Your task to perform on an android device: Go to battery settings Image 0: 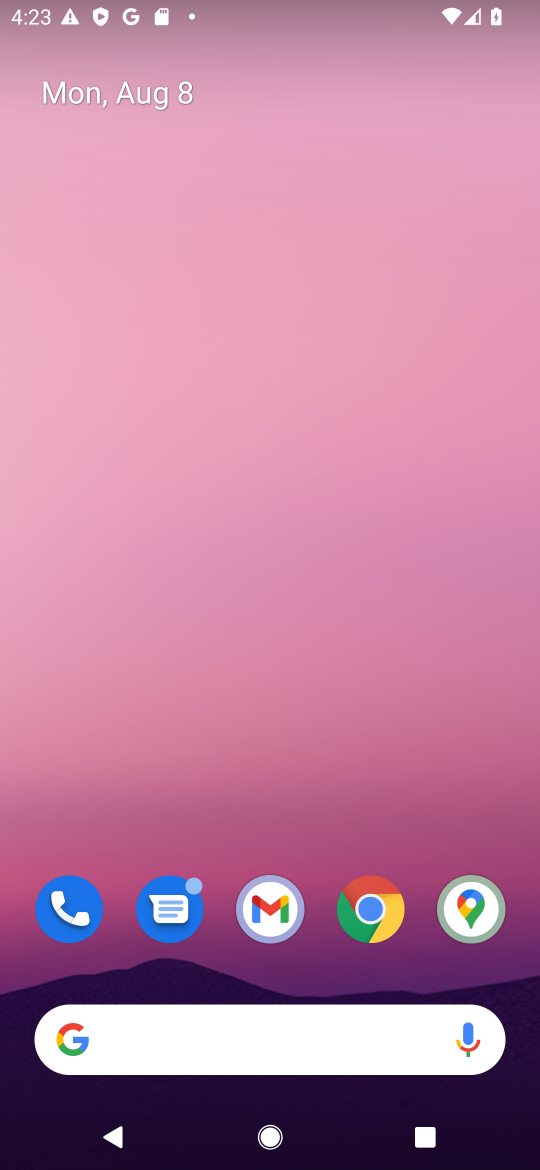
Step 0: drag from (321, 999) to (405, 186)
Your task to perform on an android device: Go to battery settings Image 1: 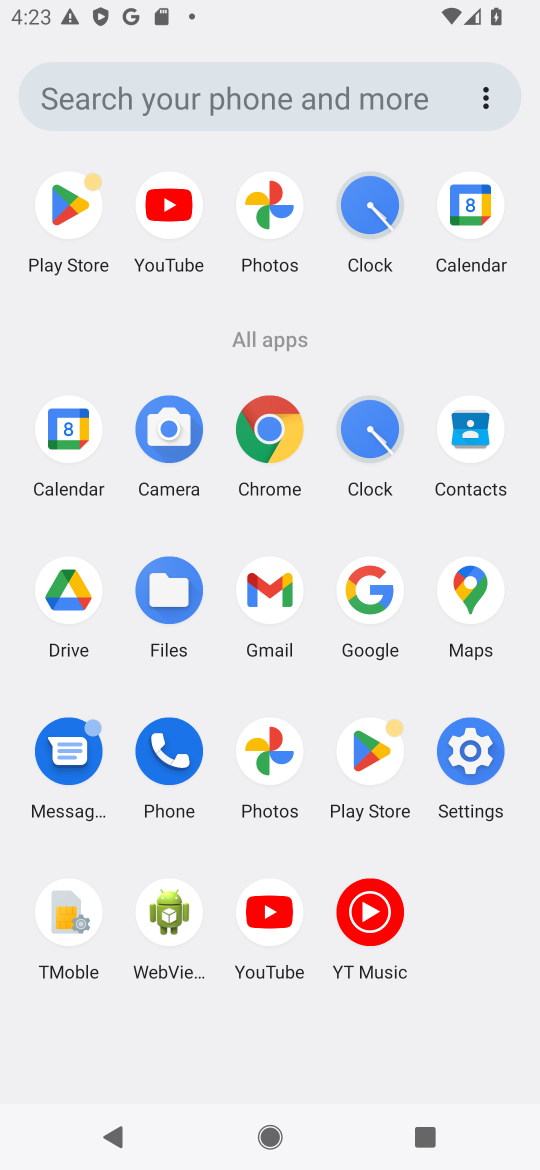
Step 1: click (467, 743)
Your task to perform on an android device: Go to battery settings Image 2: 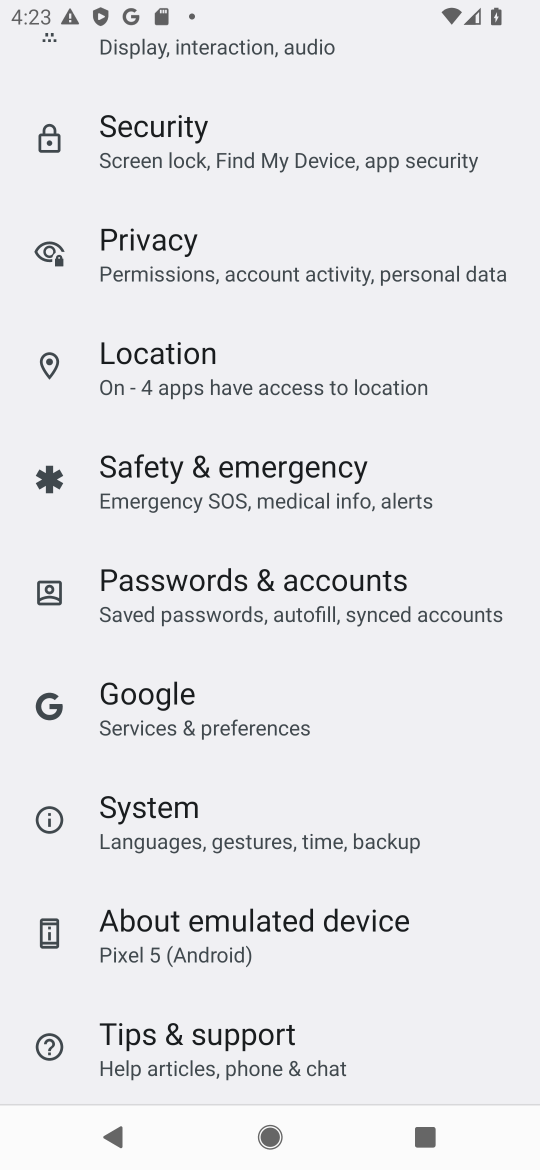
Step 2: drag from (330, 211) to (423, 1036)
Your task to perform on an android device: Go to battery settings Image 3: 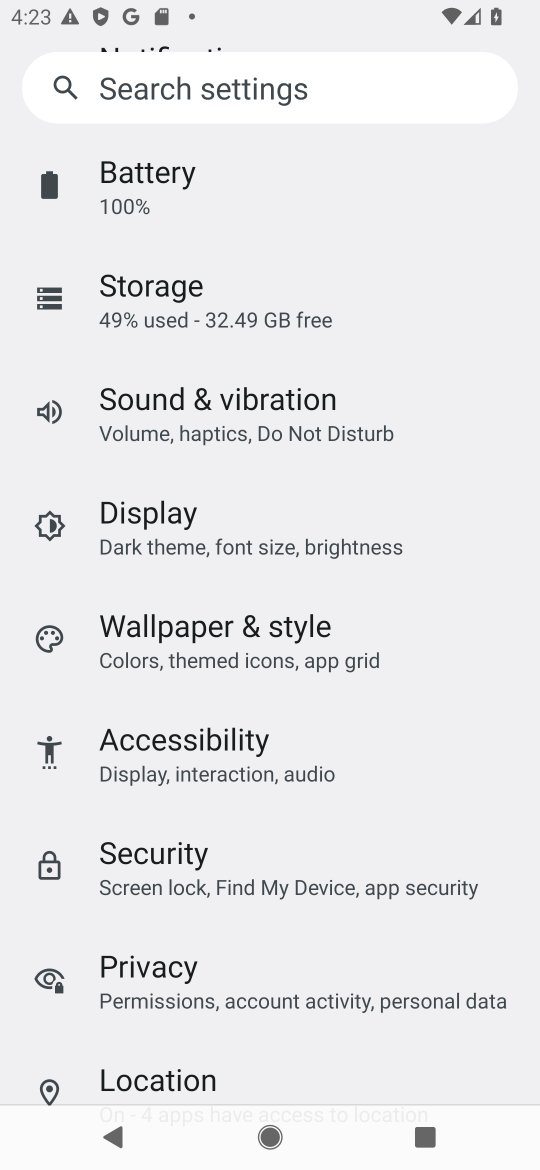
Step 3: click (137, 191)
Your task to perform on an android device: Go to battery settings Image 4: 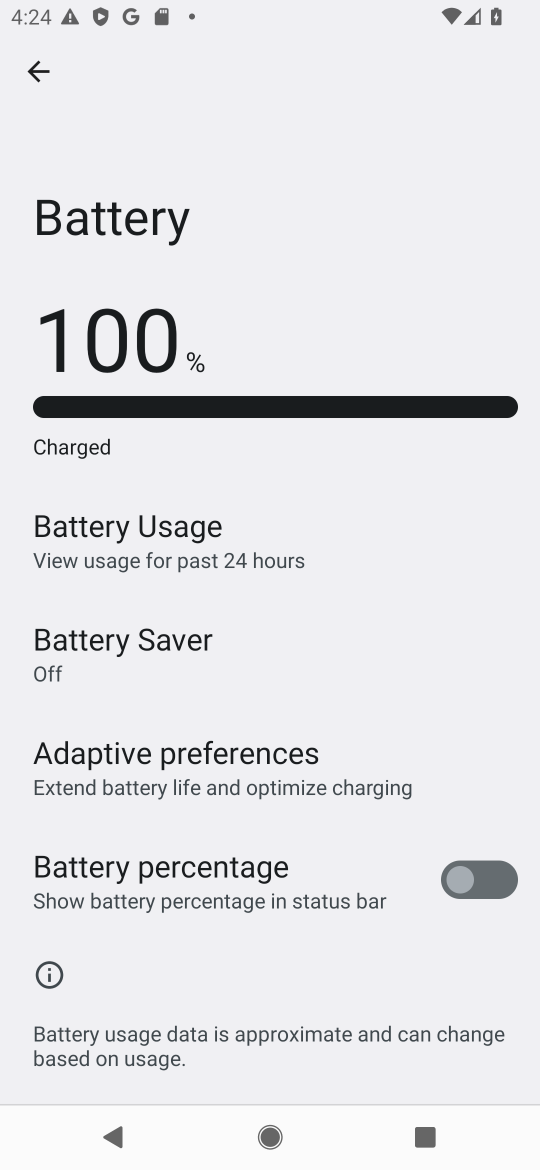
Step 4: task complete